Your task to perform on an android device: turn pop-ups off in chrome Image 0: 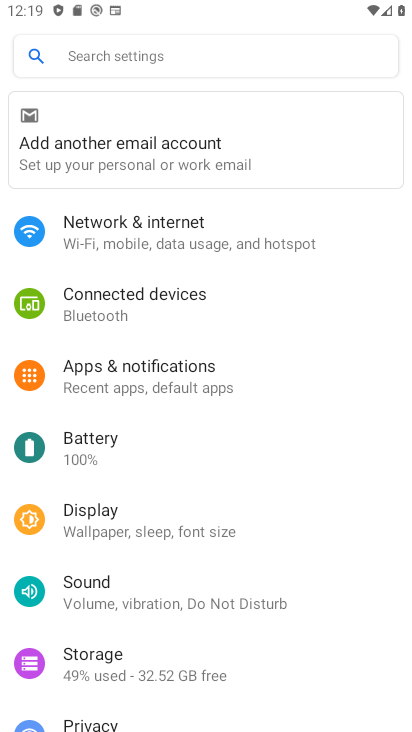
Step 0: press home button
Your task to perform on an android device: turn pop-ups off in chrome Image 1: 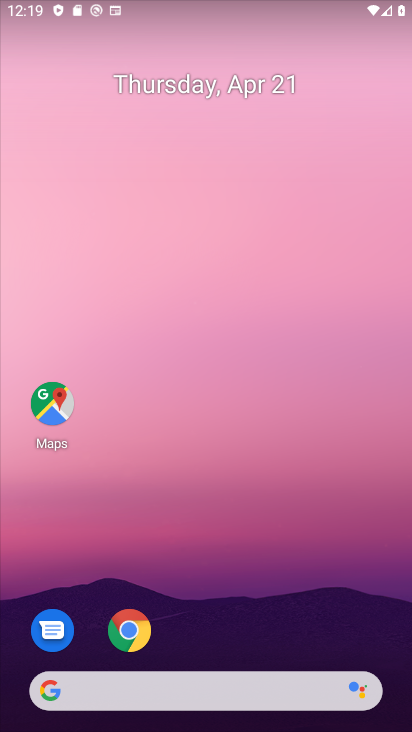
Step 1: click (141, 643)
Your task to perform on an android device: turn pop-ups off in chrome Image 2: 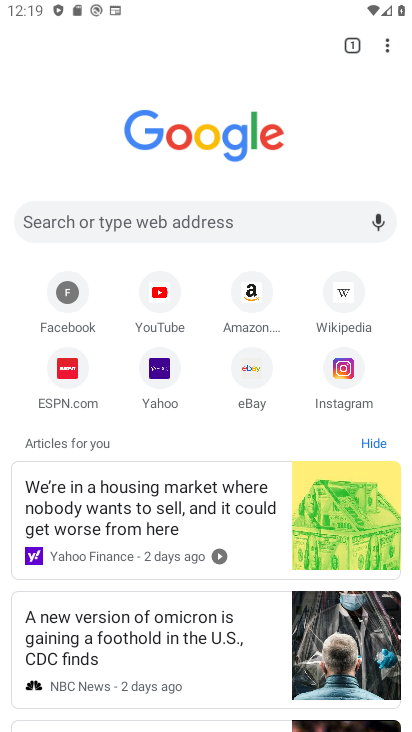
Step 2: click (386, 45)
Your task to perform on an android device: turn pop-ups off in chrome Image 3: 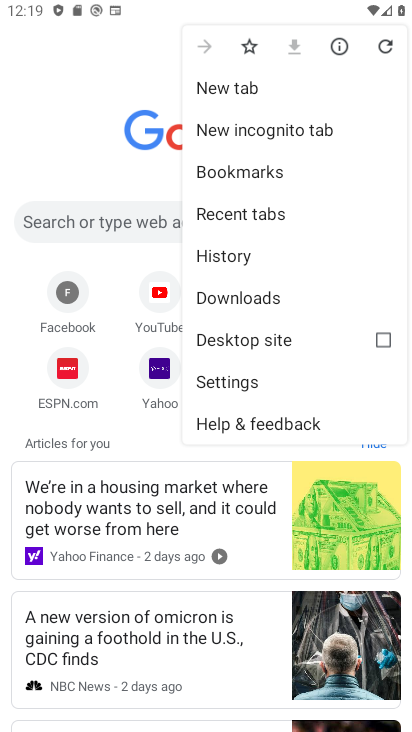
Step 3: click (250, 365)
Your task to perform on an android device: turn pop-ups off in chrome Image 4: 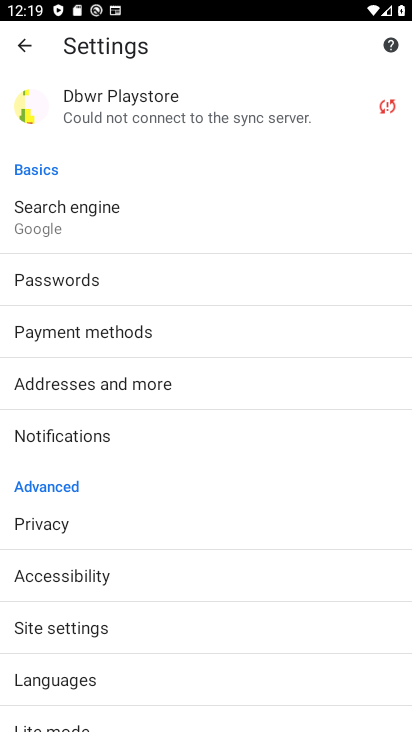
Step 4: drag from (117, 432) to (134, 278)
Your task to perform on an android device: turn pop-ups off in chrome Image 5: 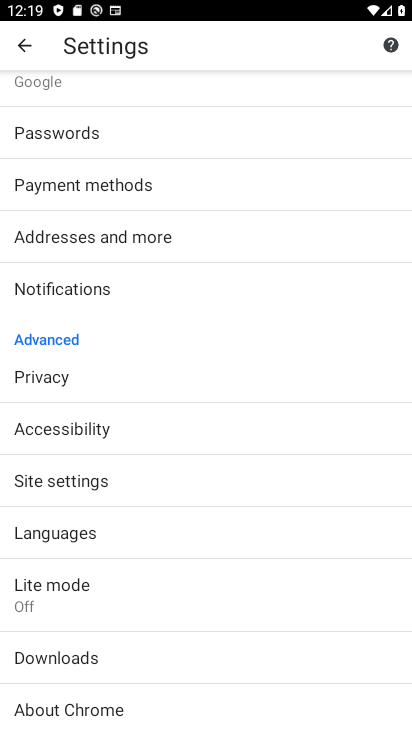
Step 5: drag from (148, 613) to (141, 362)
Your task to perform on an android device: turn pop-ups off in chrome Image 6: 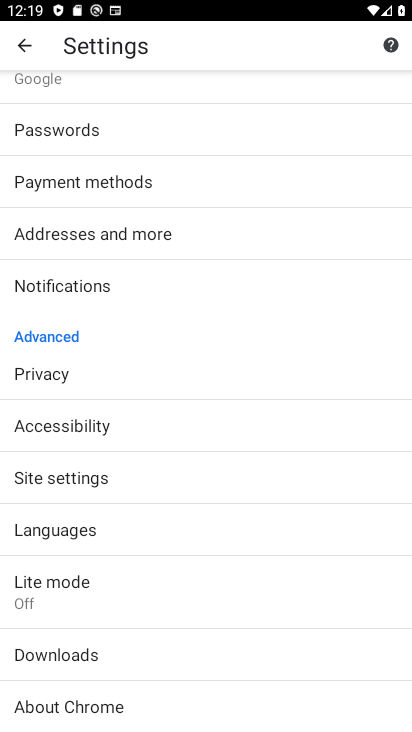
Step 6: click (190, 473)
Your task to perform on an android device: turn pop-ups off in chrome Image 7: 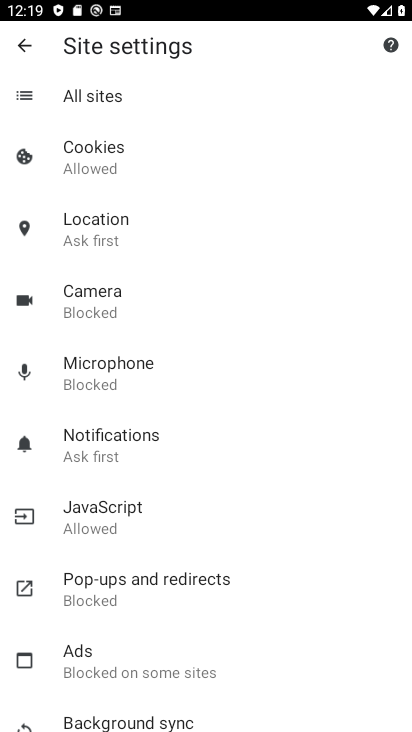
Step 7: click (180, 582)
Your task to perform on an android device: turn pop-ups off in chrome Image 8: 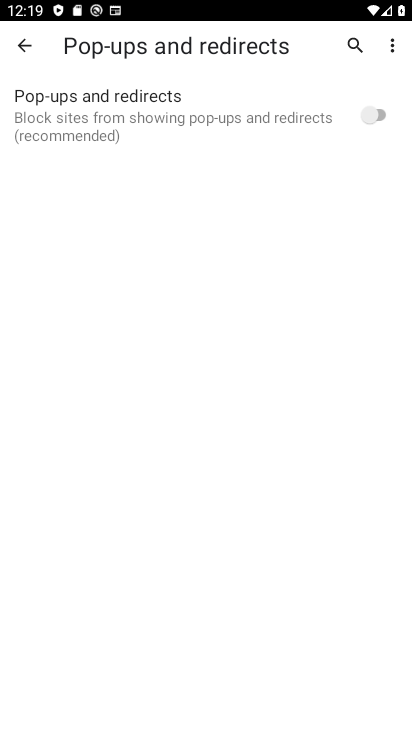
Step 8: click (369, 102)
Your task to perform on an android device: turn pop-ups off in chrome Image 9: 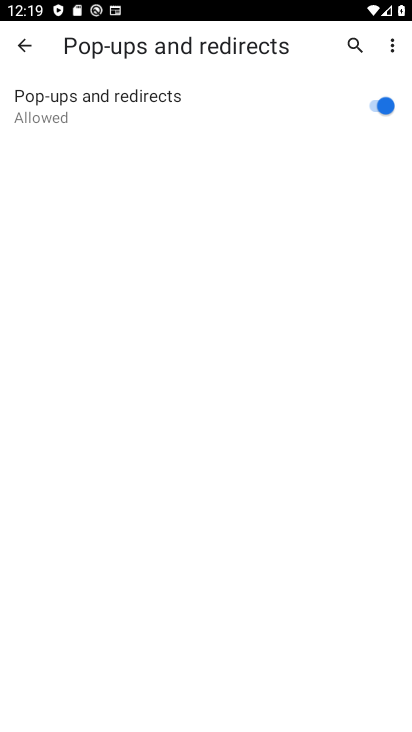
Step 9: task complete